Your task to perform on an android device: uninstall "Google Chrome" Image 0: 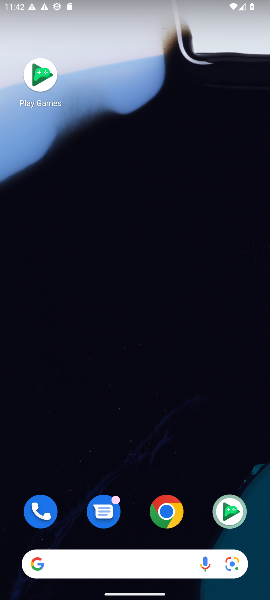
Step 0: drag from (174, 403) to (265, 221)
Your task to perform on an android device: uninstall "Google Chrome" Image 1: 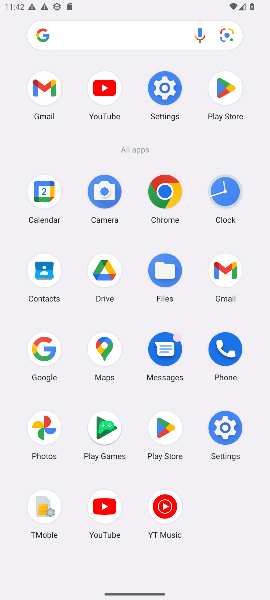
Step 1: click (223, 81)
Your task to perform on an android device: uninstall "Google Chrome" Image 2: 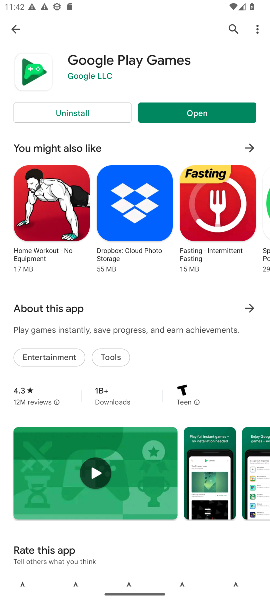
Step 2: click (233, 30)
Your task to perform on an android device: uninstall "Google Chrome" Image 3: 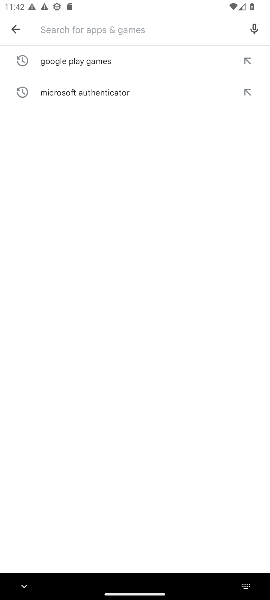
Step 3: type "google chrome"
Your task to perform on an android device: uninstall "Google Chrome" Image 4: 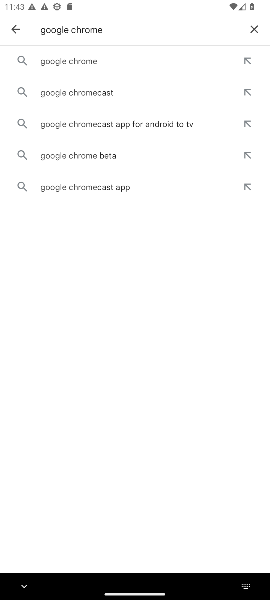
Step 4: click (45, 59)
Your task to perform on an android device: uninstall "Google Chrome" Image 5: 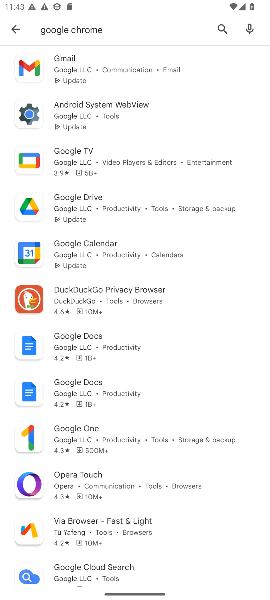
Step 5: task complete